Your task to perform on an android device: remove spam from my inbox in the gmail app Image 0: 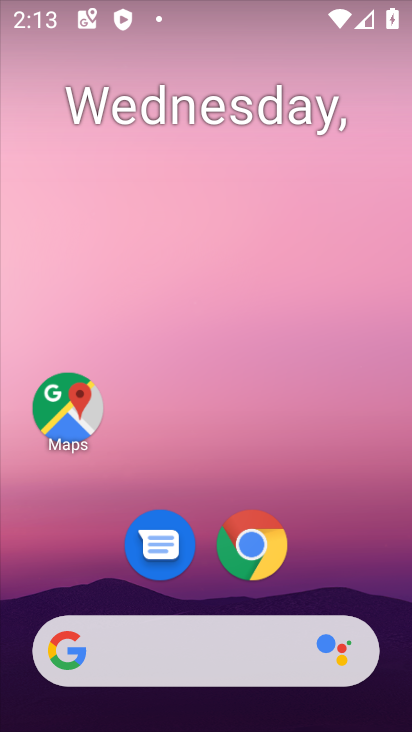
Step 0: drag from (322, 567) to (281, 136)
Your task to perform on an android device: remove spam from my inbox in the gmail app Image 1: 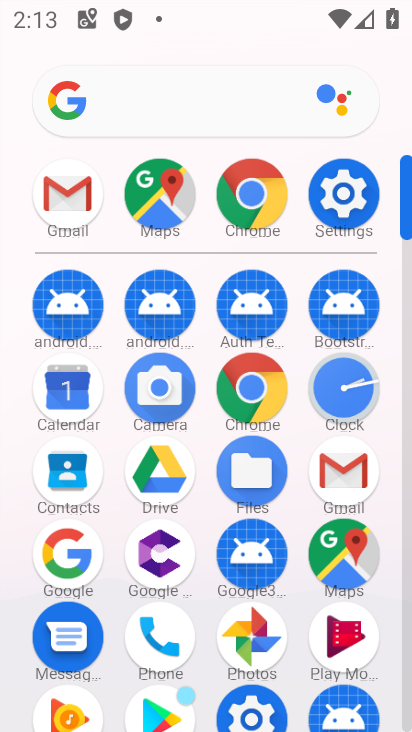
Step 1: click (70, 202)
Your task to perform on an android device: remove spam from my inbox in the gmail app Image 2: 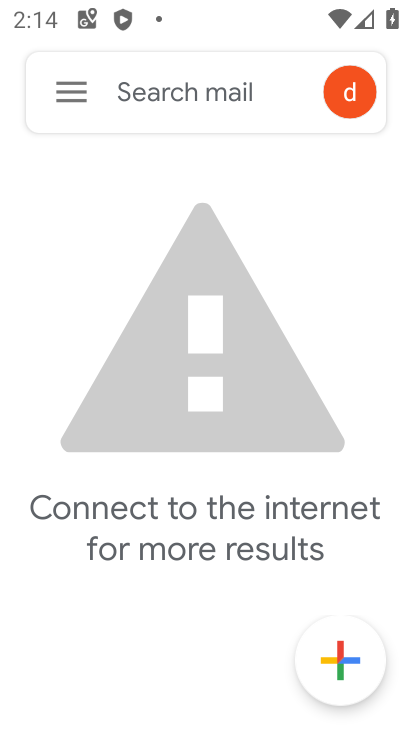
Step 2: click (73, 97)
Your task to perform on an android device: remove spam from my inbox in the gmail app Image 3: 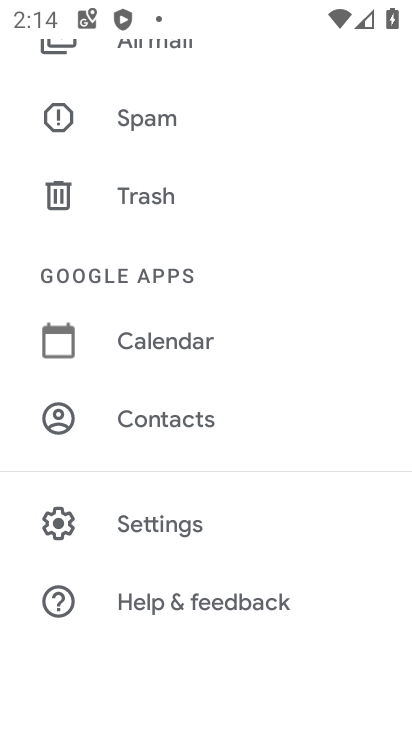
Step 3: drag from (173, 143) to (209, 723)
Your task to perform on an android device: remove spam from my inbox in the gmail app Image 4: 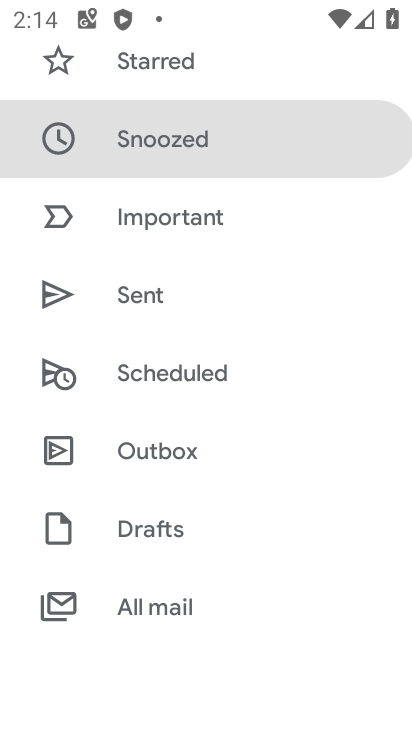
Step 4: drag from (168, 204) to (133, 584)
Your task to perform on an android device: remove spam from my inbox in the gmail app Image 5: 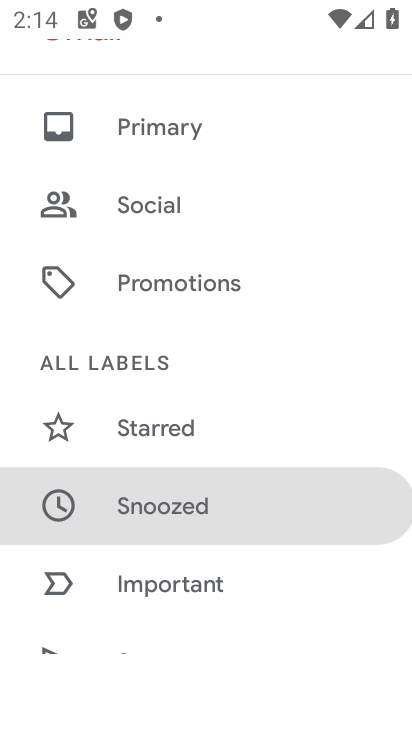
Step 5: click (152, 124)
Your task to perform on an android device: remove spam from my inbox in the gmail app Image 6: 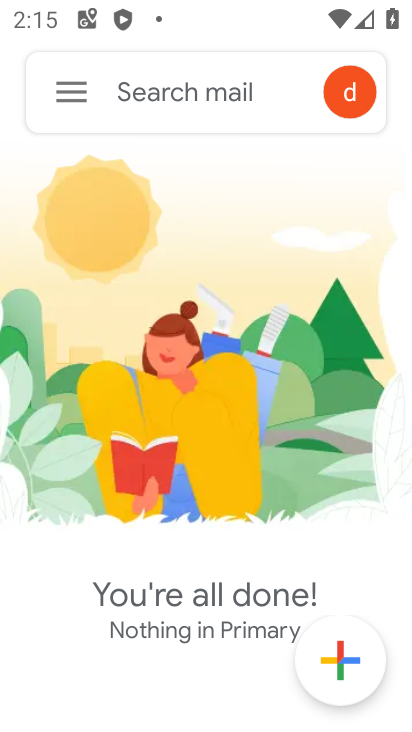
Step 6: task complete